Your task to perform on an android device: set an alarm Image 0: 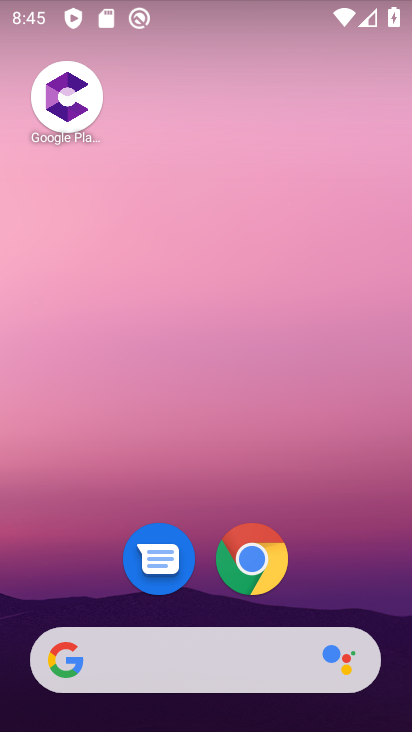
Step 0: drag from (194, 598) to (223, 50)
Your task to perform on an android device: set an alarm Image 1: 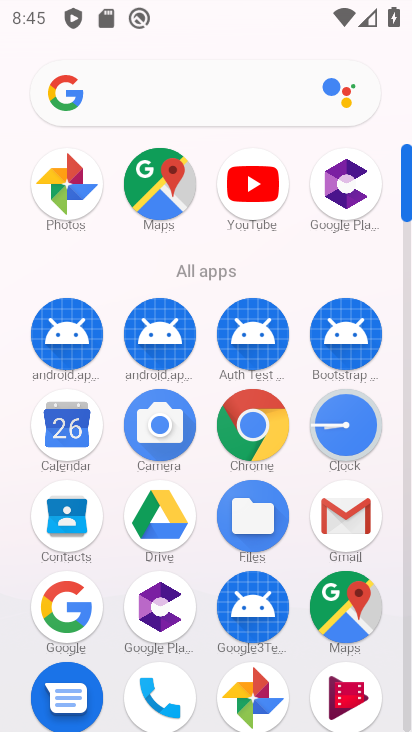
Step 1: click (340, 430)
Your task to perform on an android device: set an alarm Image 2: 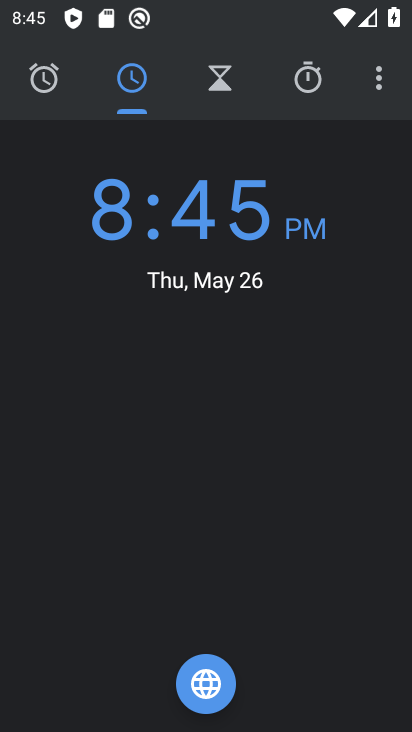
Step 2: drag from (313, 77) to (112, 62)
Your task to perform on an android device: set an alarm Image 3: 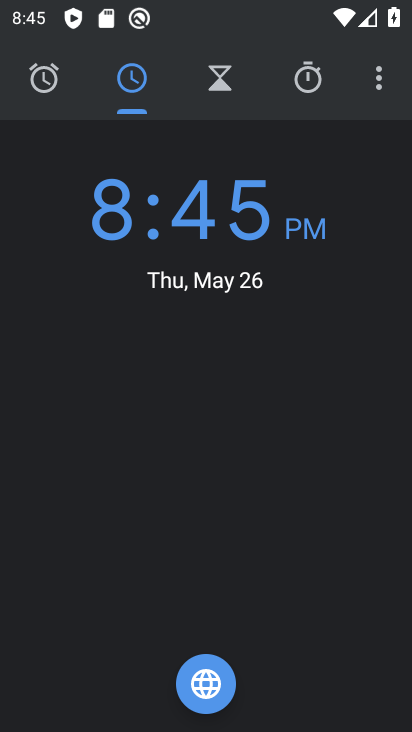
Step 3: click (42, 79)
Your task to perform on an android device: set an alarm Image 4: 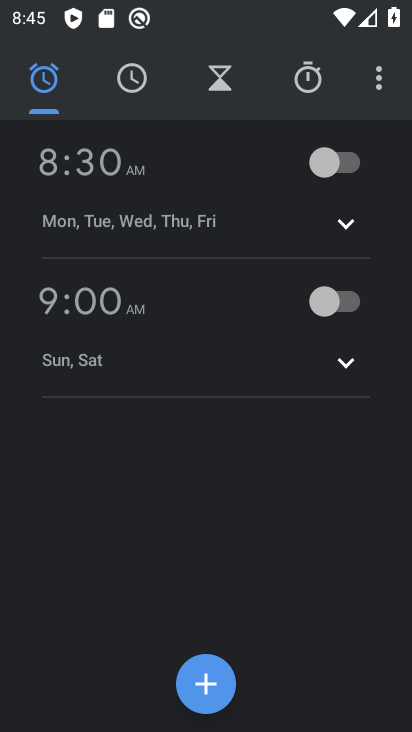
Step 4: click (349, 152)
Your task to perform on an android device: set an alarm Image 5: 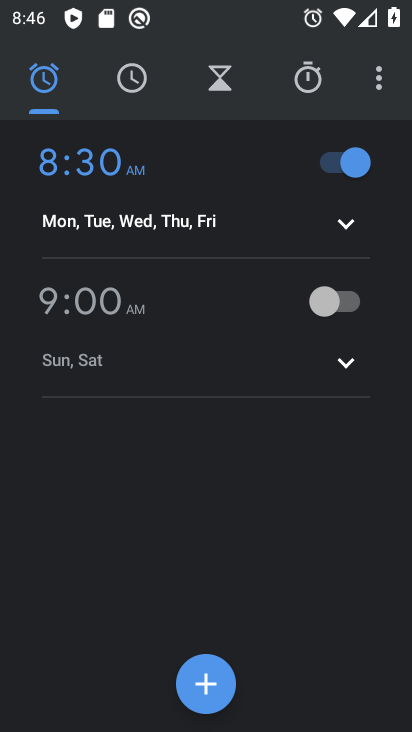
Step 5: task complete